Your task to perform on an android device: open a new tab in the chrome app Image 0: 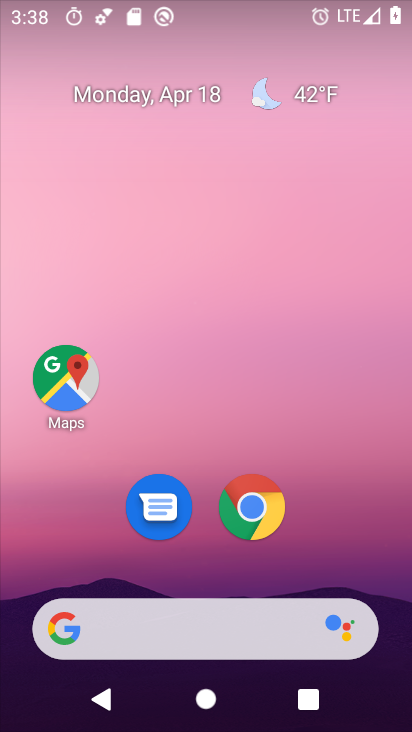
Step 0: drag from (370, 497) to (366, 99)
Your task to perform on an android device: open a new tab in the chrome app Image 1: 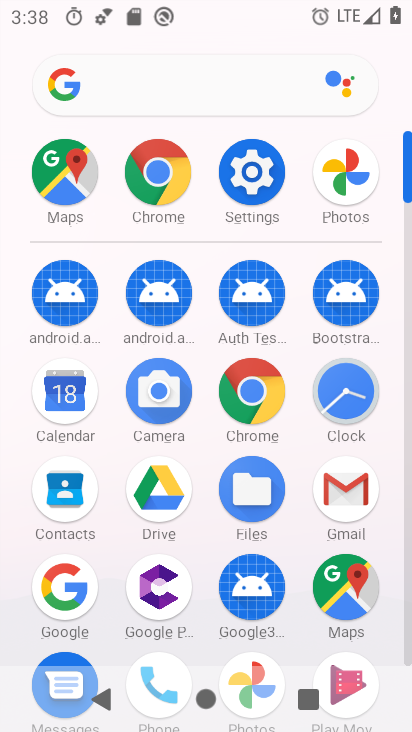
Step 1: click (240, 393)
Your task to perform on an android device: open a new tab in the chrome app Image 2: 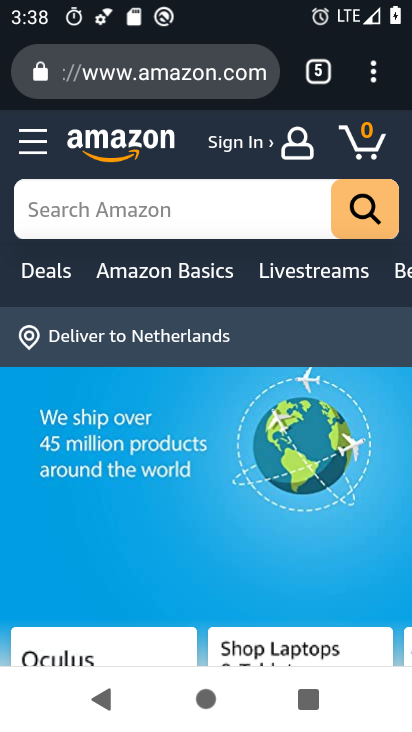
Step 2: click (318, 68)
Your task to perform on an android device: open a new tab in the chrome app Image 3: 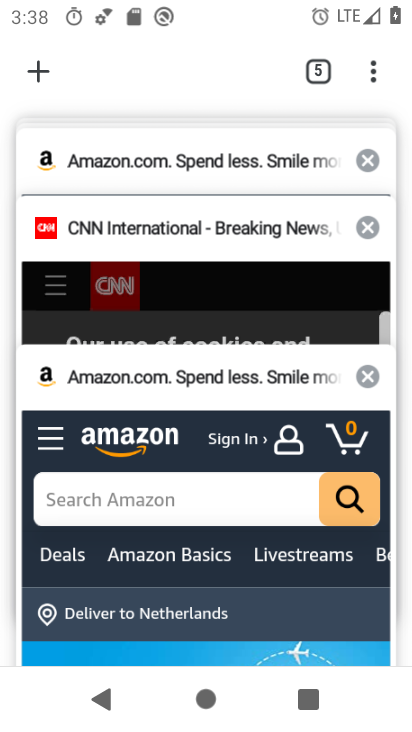
Step 3: click (34, 79)
Your task to perform on an android device: open a new tab in the chrome app Image 4: 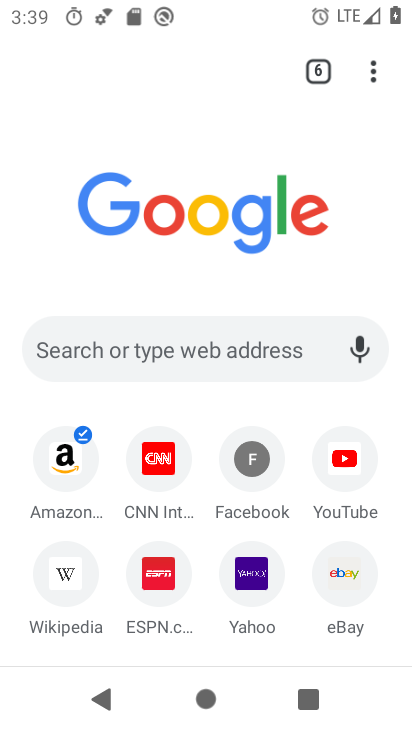
Step 4: task complete